Your task to perform on an android device: Show me recent news Image 0: 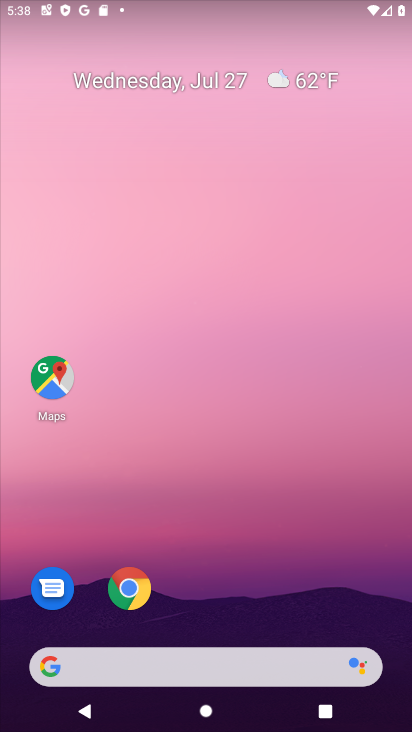
Step 0: drag from (195, 547) to (213, 39)
Your task to perform on an android device: Show me recent news Image 1: 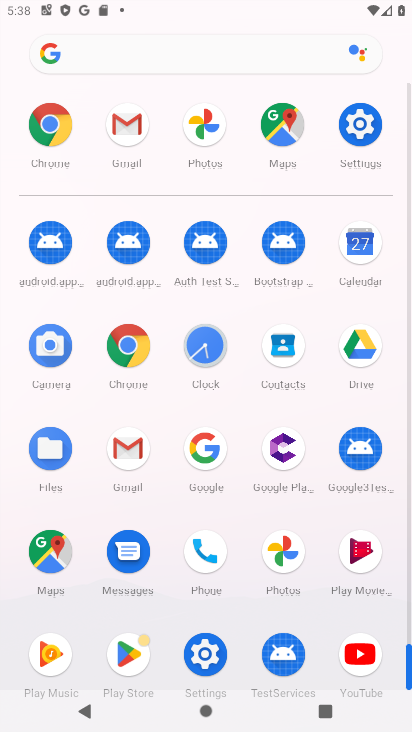
Step 1: click (206, 467)
Your task to perform on an android device: Show me recent news Image 2: 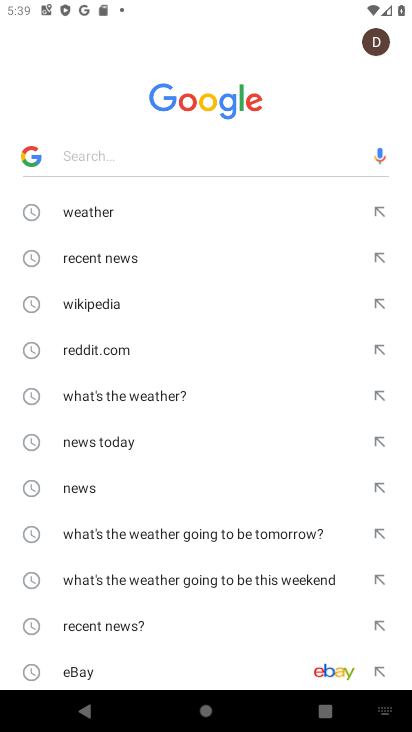
Step 2: click (117, 262)
Your task to perform on an android device: Show me recent news Image 3: 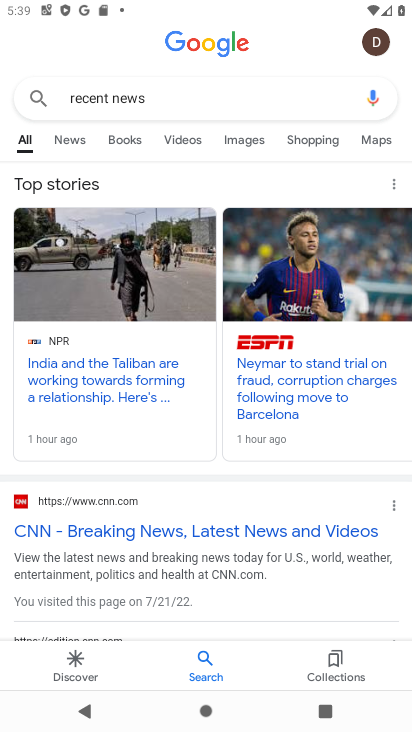
Step 3: task complete